Your task to perform on an android device: Open accessibility settings Image 0: 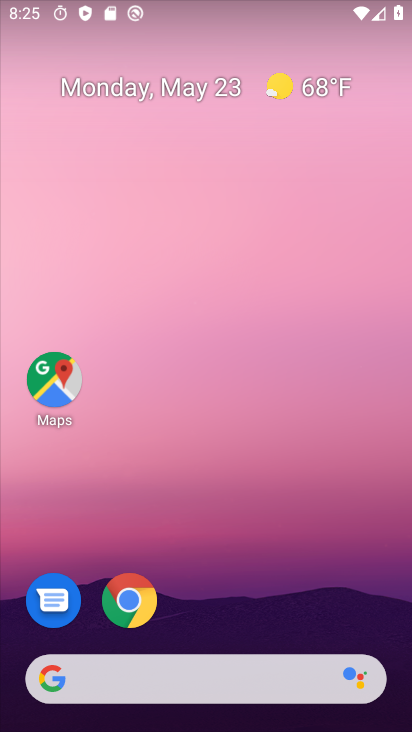
Step 0: drag from (15, 654) to (201, 145)
Your task to perform on an android device: Open accessibility settings Image 1: 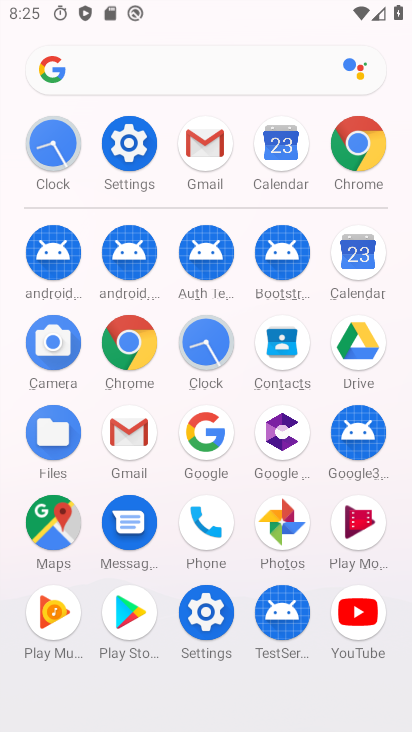
Step 1: click (143, 150)
Your task to perform on an android device: Open accessibility settings Image 2: 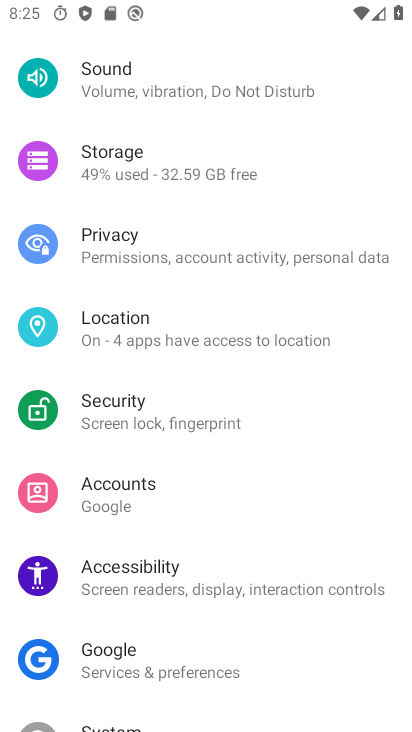
Step 2: click (162, 582)
Your task to perform on an android device: Open accessibility settings Image 3: 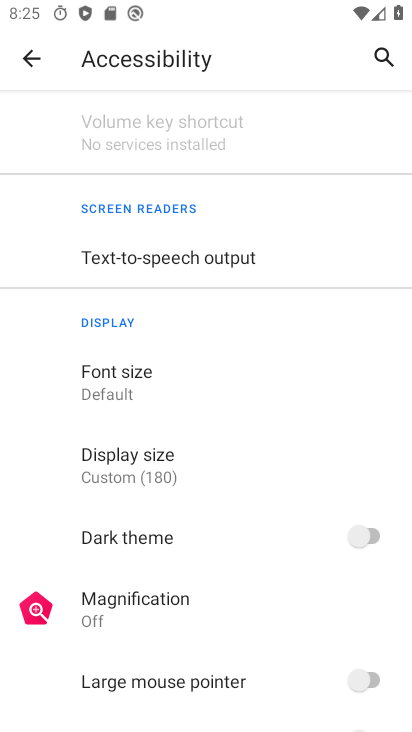
Step 3: task complete